Your task to perform on an android device: Open eBay Image 0: 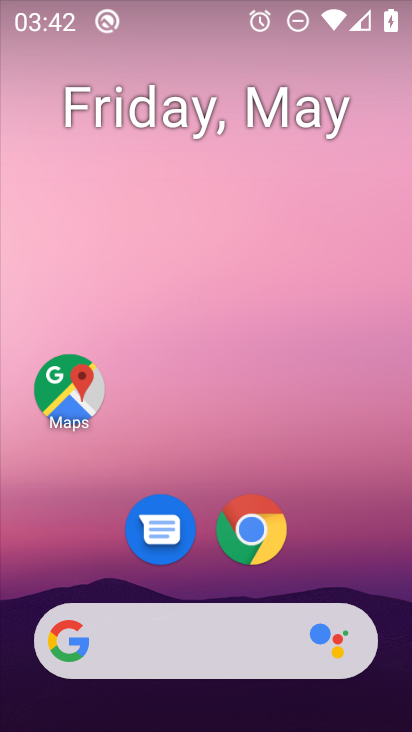
Step 0: click (250, 527)
Your task to perform on an android device: Open eBay Image 1: 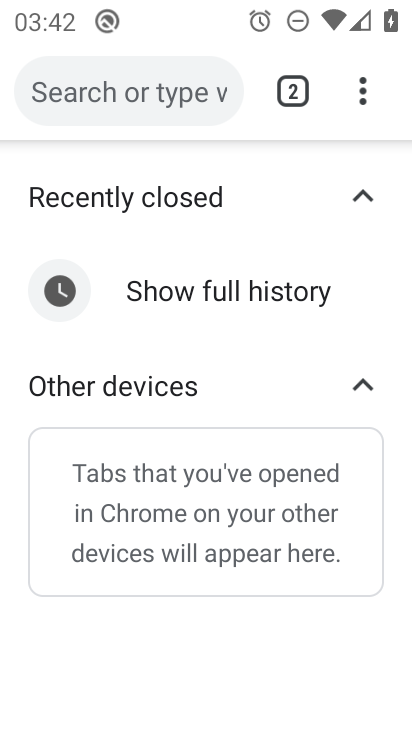
Step 1: click (127, 101)
Your task to perform on an android device: Open eBay Image 2: 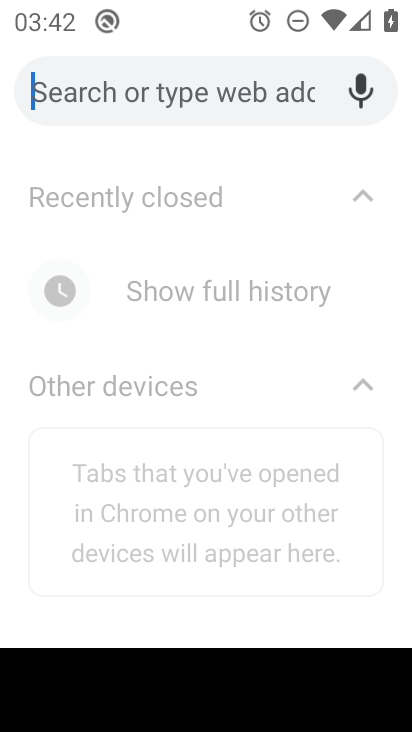
Step 2: type "eBay"
Your task to perform on an android device: Open eBay Image 3: 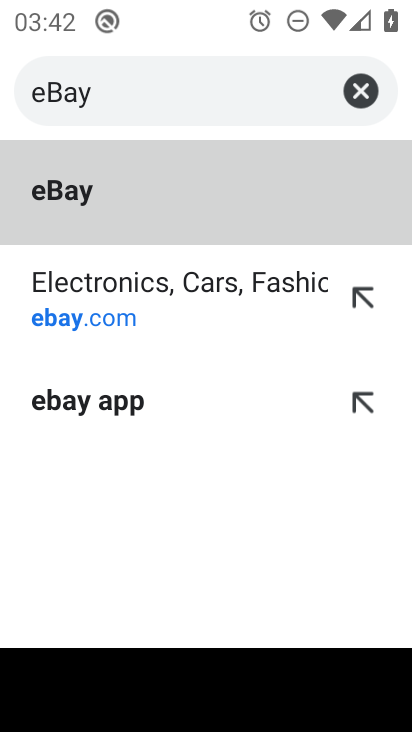
Step 3: click (38, 187)
Your task to perform on an android device: Open eBay Image 4: 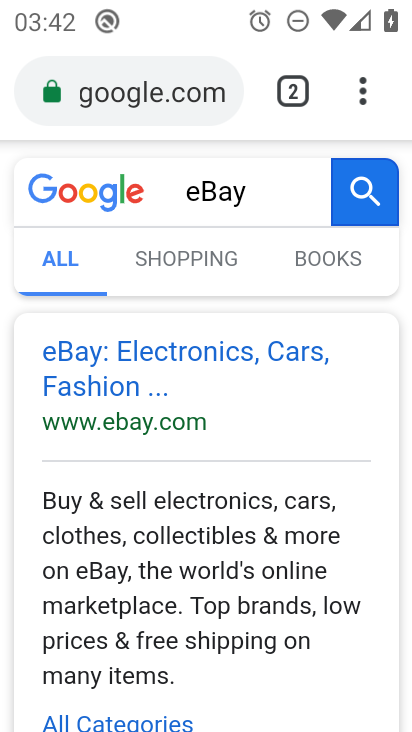
Step 4: task complete